Your task to perform on an android device: Go to Wikipedia Image 0: 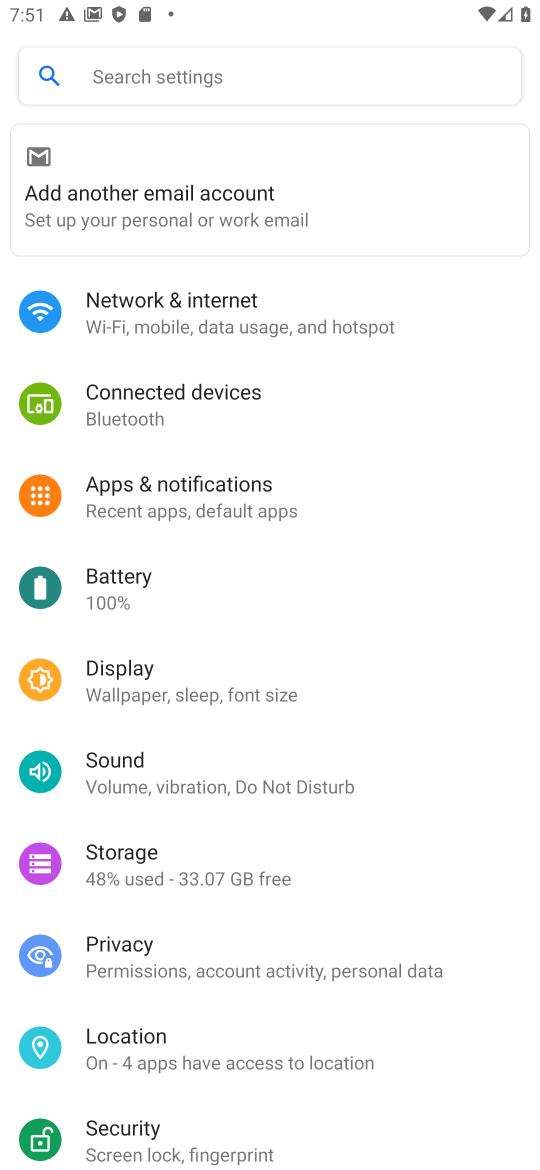
Step 0: press home button
Your task to perform on an android device: Go to Wikipedia Image 1: 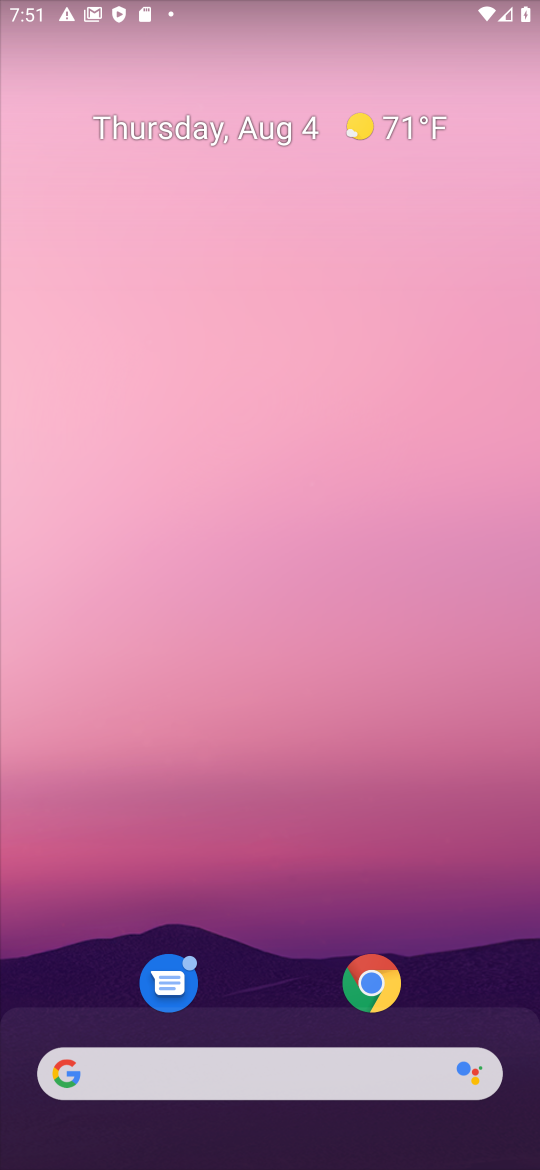
Step 1: task complete